Your task to perform on an android device: Go to Reddit.com Image 0: 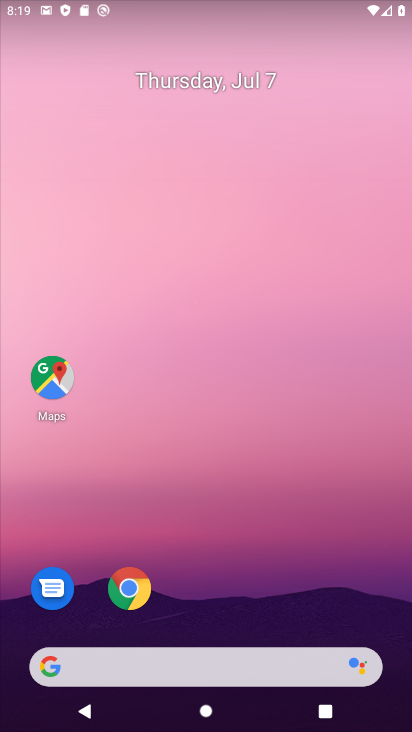
Step 0: click (127, 597)
Your task to perform on an android device: Go to Reddit.com Image 1: 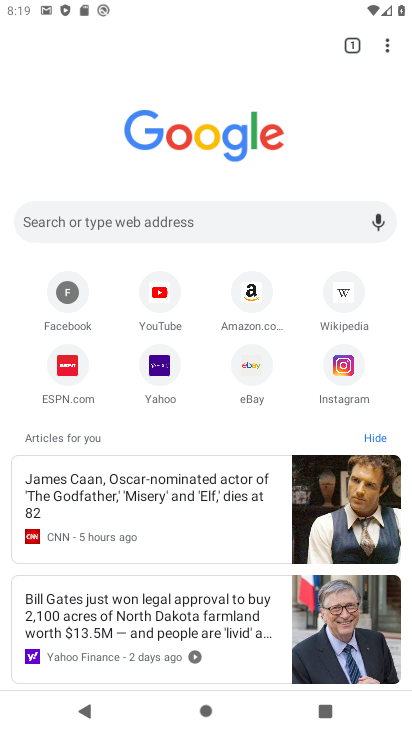
Step 1: click (167, 216)
Your task to perform on an android device: Go to Reddit.com Image 2: 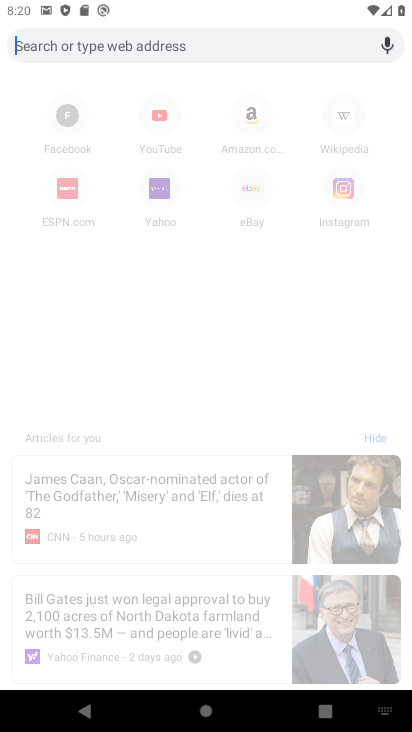
Step 2: type "reddit.com"
Your task to perform on an android device: Go to Reddit.com Image 3: 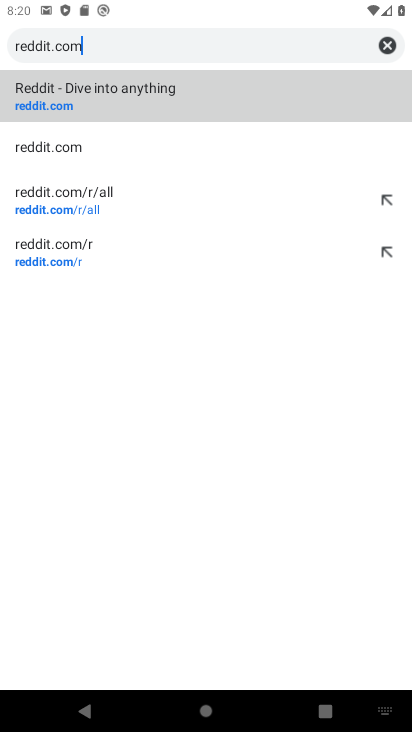
Step 3: click (181, 104)
Your task to perform on an android device: Go to Reddit.com Image 4: 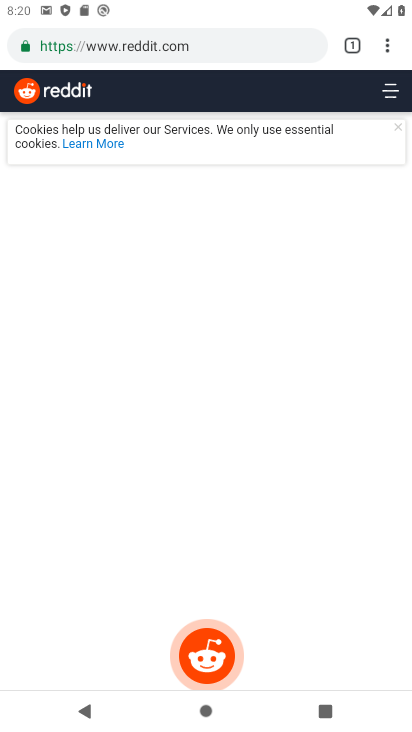
Step 4: task complete